Your task to perform on an android device: Open the phone app and click the voicemail tab. Image 0: 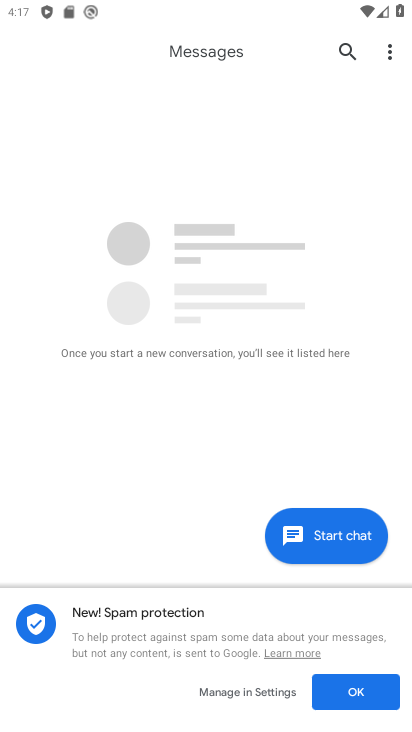
Step 0: press back button
Your task to perform on an android device: Open the phone app and click the voicemail tab. Image 1: 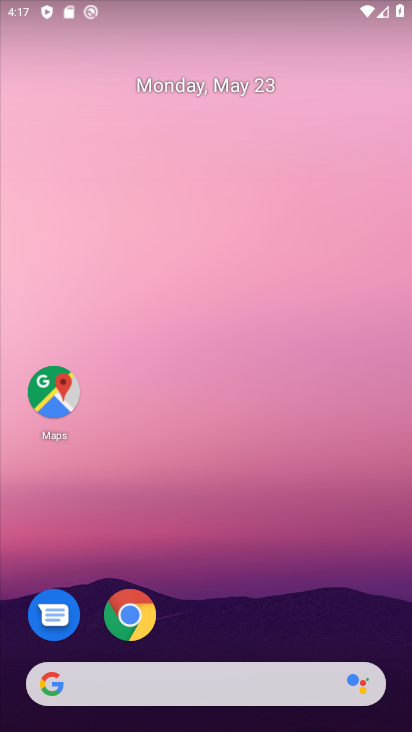
Step 1: drag from (254, 588) to (291, 39)
Your task to perform on an android device: Open the phone app and click the voicemail tab. Image 2: 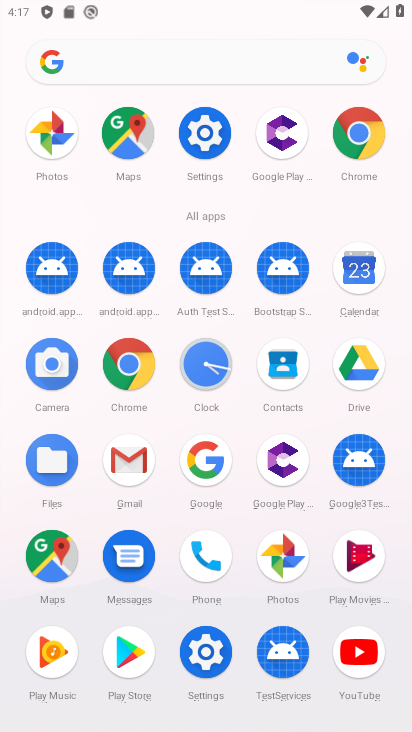
Step 2: click (202, 562)
Your task to perform on an android device: Open the phone app and click the voicemail tab. Image 3: 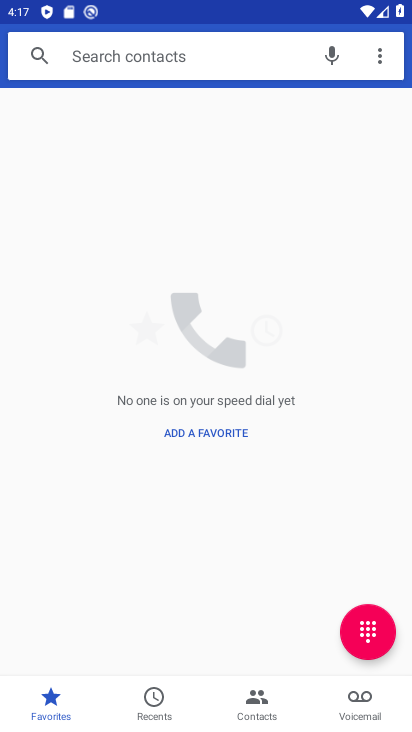
Step 3: click (343, 706)
Your task to perform on an android device: Open the phone app and click the voicemail tab. Image 4: 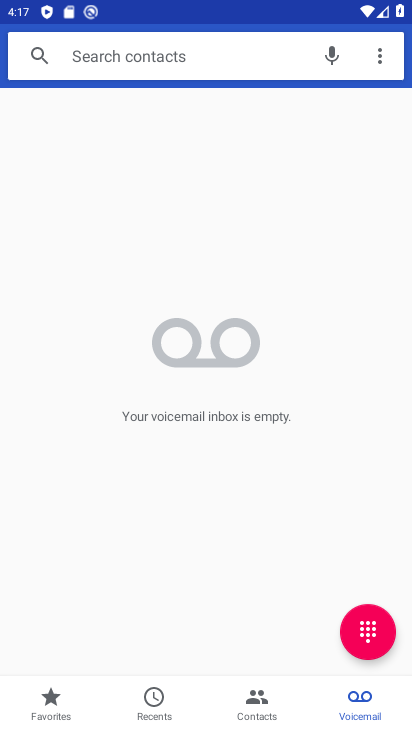
Step 4: task complete